Your task to perform on an android device: turn on sleep mode Image 0: 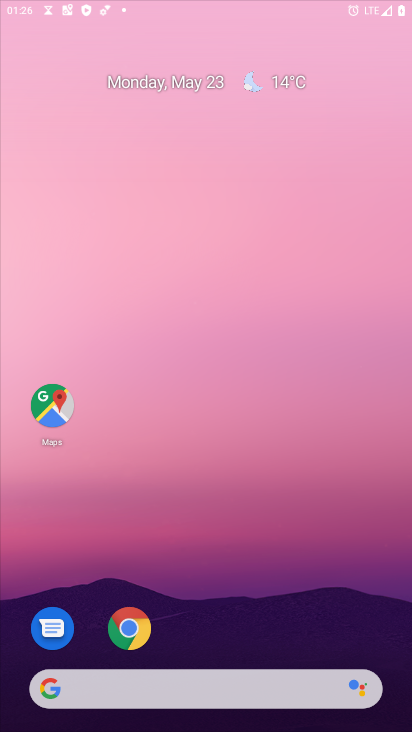
Step 0: click (233, 14)
Your task to perform on an android device: turn on sleep mode Image 1: 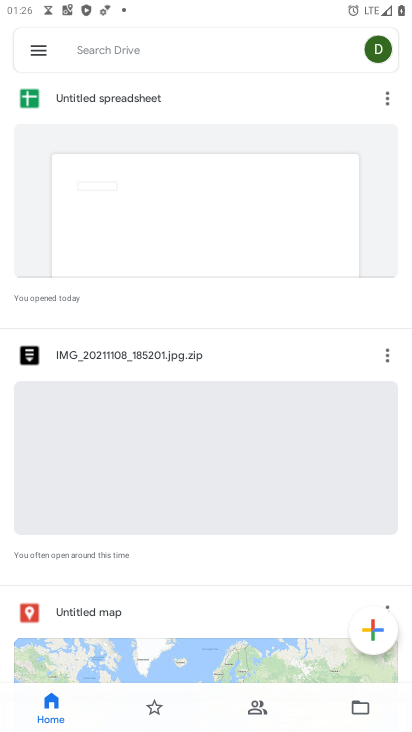
Step 1: press home button
Your task to perform on an android device: turn on sleep mode Image 2: 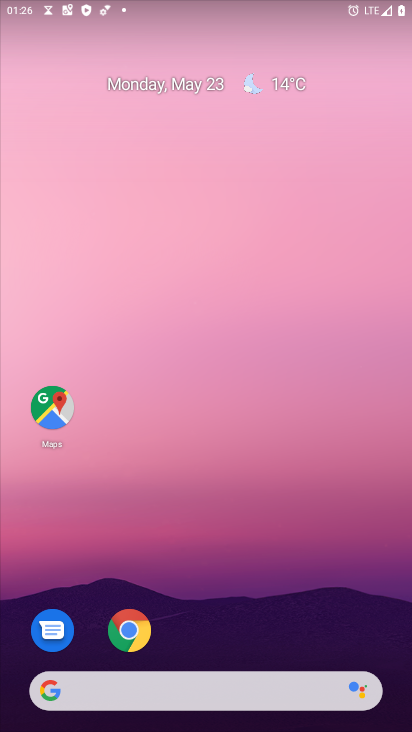
Step 2: drag from (282, 503) to (229, 27)
Your task to perform on an android device: turn on sleep mode Image 3: 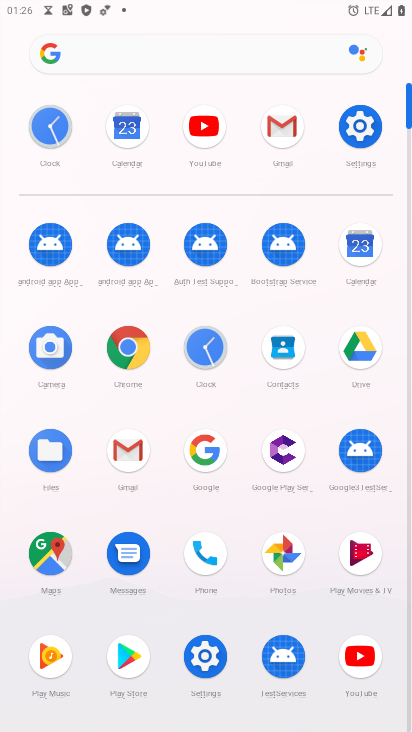
Step 3: click (357, 120)
Your task to perform on an android device: turn on sleep mode Image 4: 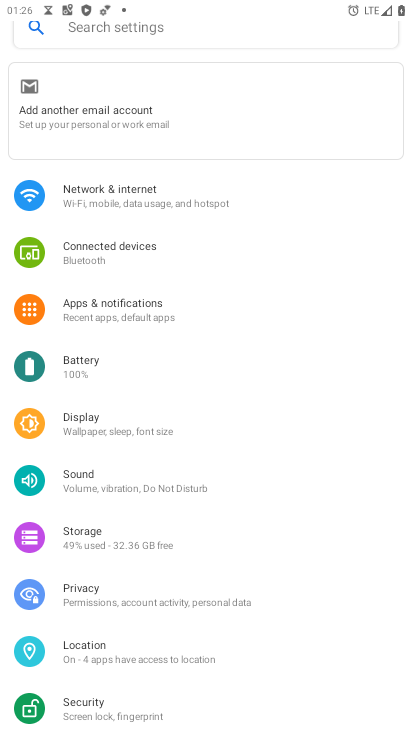
Step 4: click (186, 432)
Your task to perform on an android device: turn on sleep mode Image 5: 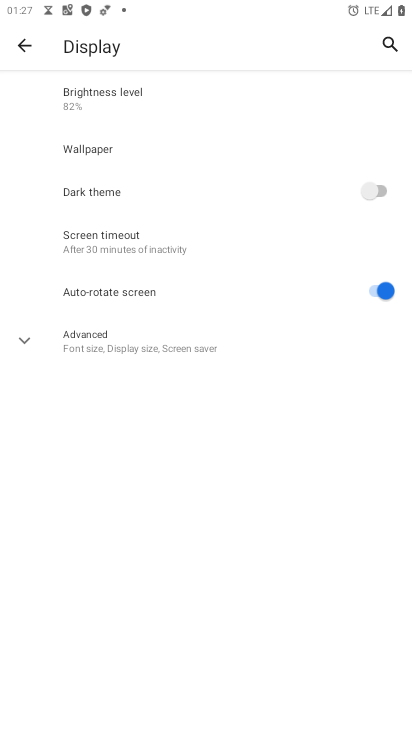
Step 5: task complete